Your task to perform on an android device: turn on sleep mode Image 0: 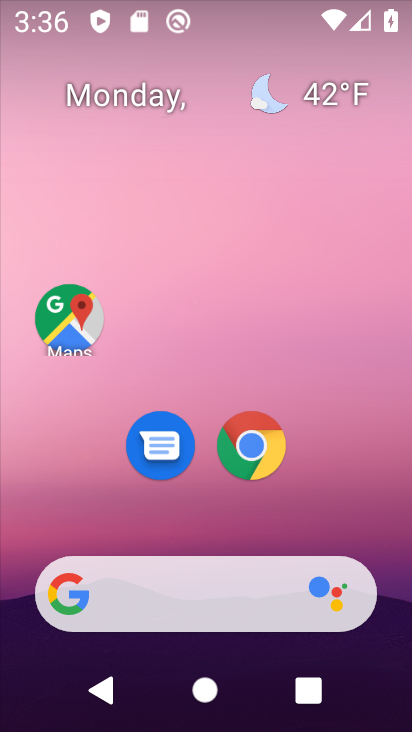
Step 0: drag from (13, 491) to (226, 2)
Your task to perform on an android device: turn on sleep mode Image 1: 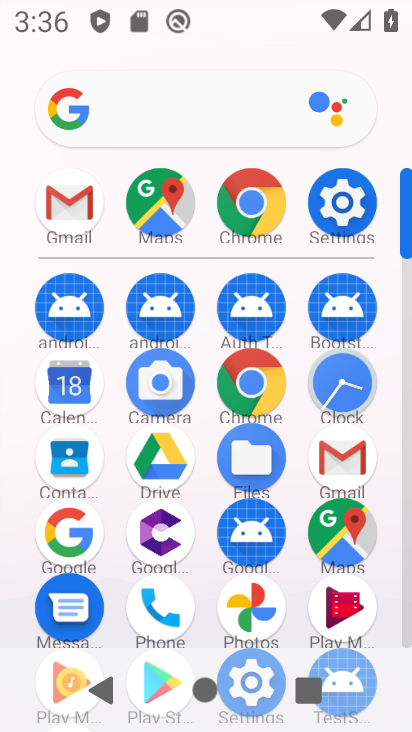
Step 1: click (348, 202)
Your task to perform on an android device: turn on sleep mode Image 2: 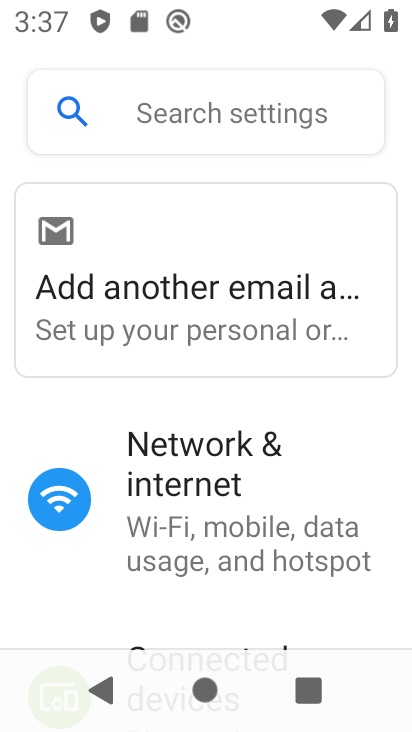
Step 2: task complete